Your task to perform on an android device: Is it going to rain tomorrow? Image 0: 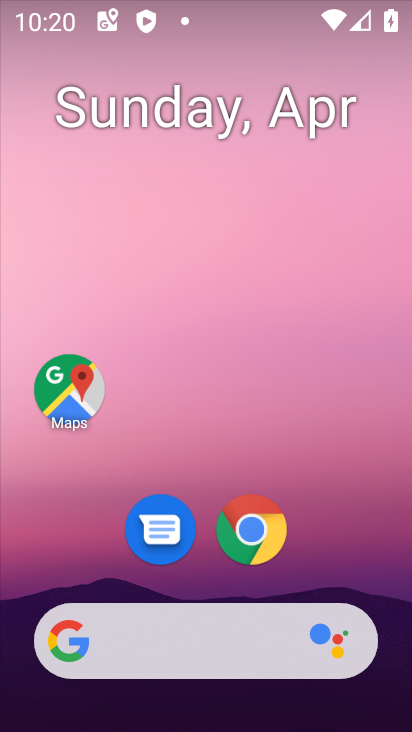
Step 0: click (227, 639)
Your task to perform on an android device: Is it going to rain tomorrow? Image 1: 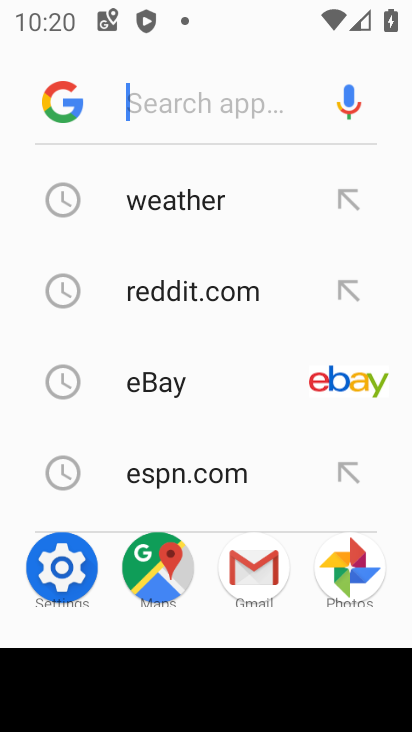
Step 1: type "Is it going to rain tomorrow?"
Your task to perform on an android device: Is it going to rain tomorrow? Image 2: 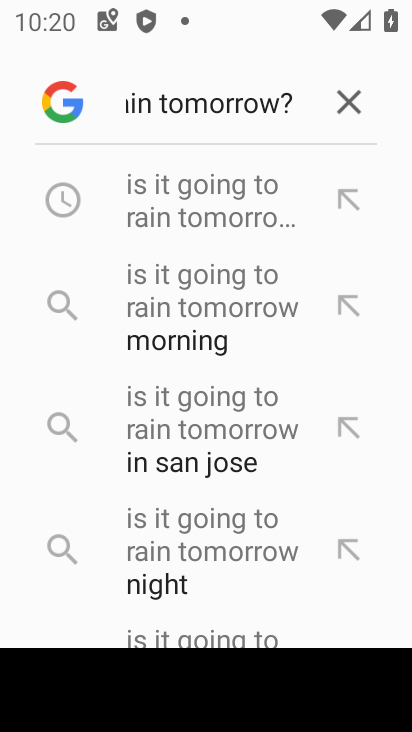
Step 2: click (232, 221)
Your task to perform on an android device: Is it going to rain tomorrow? Image 3: 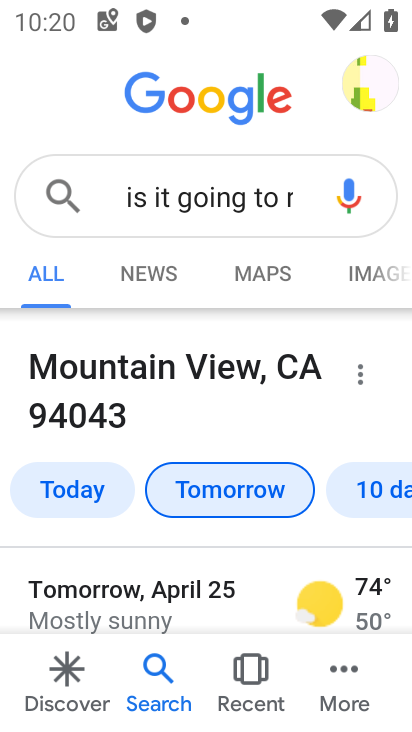
Step 3: task complete